Your task to perform on an android device: open app "DuckDuckGo Privacy Browser" (install if not already installed) Image 0: 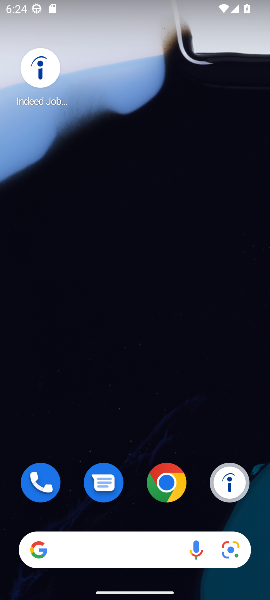
Step 0: drag from (178, 447) to (190, 3)
Your task to perform on an android device: open app "DuckDuckGo Privacy Browser" (install if not already installed) Image 1: 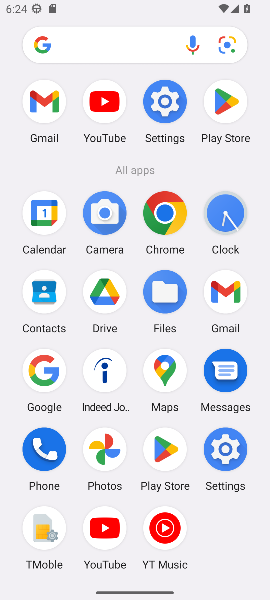
Step 1: click (222, 104)
Your task to perform on an android device: open app "DuckDuckGo Privacy Browser" (install if not already installed) Image 2: 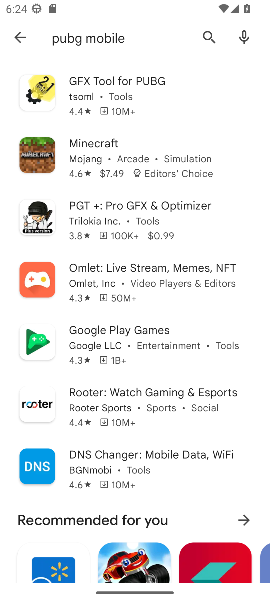
Step 2: click (207, 38)
Your task to perform on an android device: open app "DuckDuckGo Privacy Browser" (install if not already installed) Image 3: 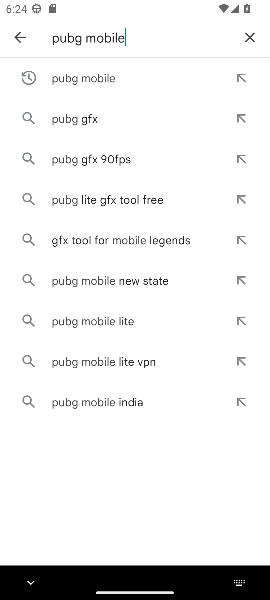
Step 3: click (253, 42)
Your task to perform on an android device: open app "DuckDuckGo Privacy Browser" (install if not already installed) Image 4: 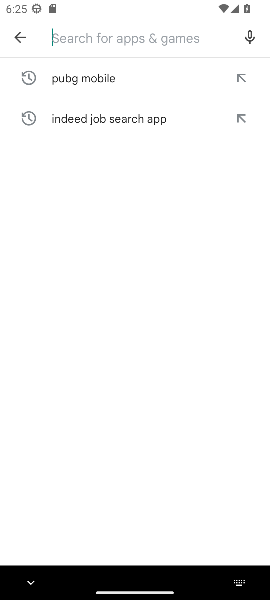
Step 4: type "DuckDuckGo privacy browser"
Your task to perform on an android device: open app "DuckDuckGo Privacy Browser" (install if not already installed) Image 5: 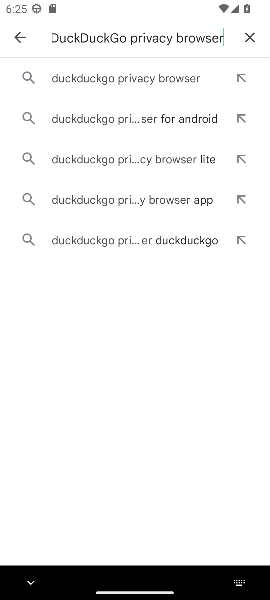
Step 5: click (118, 77)
Your task to perform on an android device: open app "DuckDuckGo Privacy Browser" (install if not already installed) Image 6: 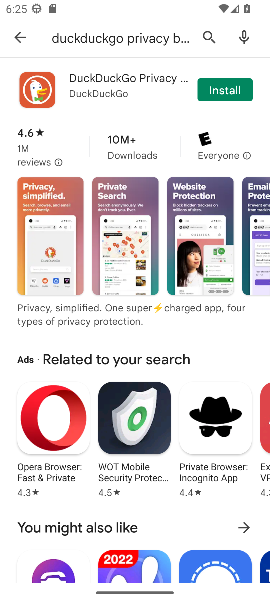
Step 6: click (98, 80)
Your task to perform on an android device: open app "DuckDuckGo Privacy Browser" (install if not already installed) Image 7: 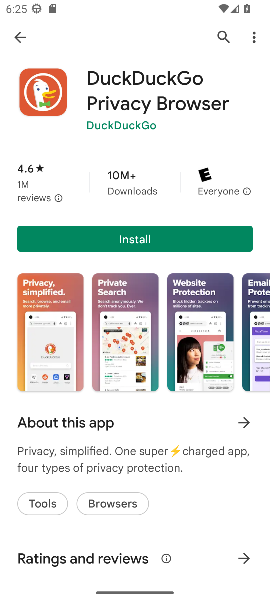
Step 7: click (108, 233)
Your task to perform on an android device: open app "DuckDuckGo Privacy Browser" (install if not already installed) Image 8: 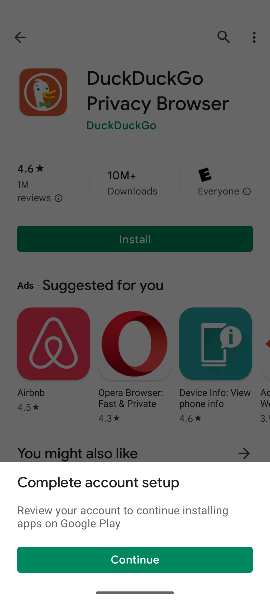
Step 8: click (98, 563)
Your task to perform on an android device: open app "DuckDuckGo Privacy Browser" (install if not already installed) Image 9: 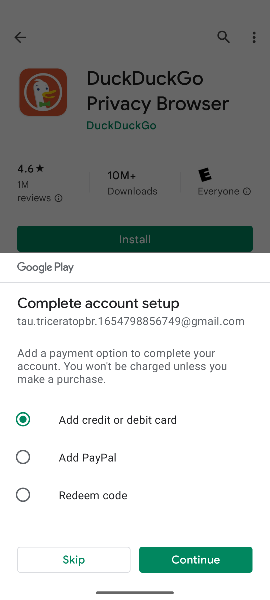
Step 9: click (68, 560)
Your task to perform on an android device: open app "DuckDuckGo Privacy Browser" (install if not already installed) Image 10: 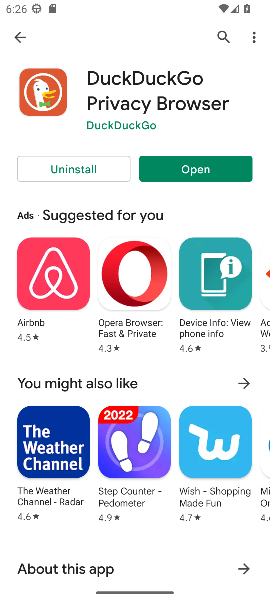
Step 10: click (216, 173)
Your task to perform on an android device: open app "DuckDuckGo Privacy Browser" (install if not already installed) Image 11: 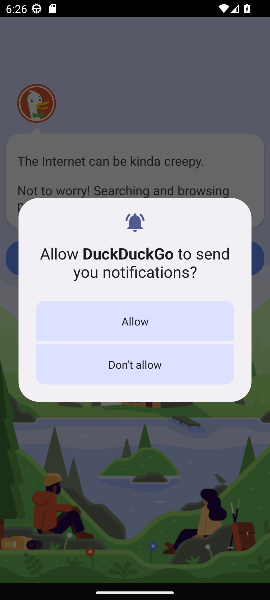
Step 11: click (186, 328)
Your task to perform on an android device: open app "DuckDuckGo Privacy Browser" (install if not already installed) Image 12: 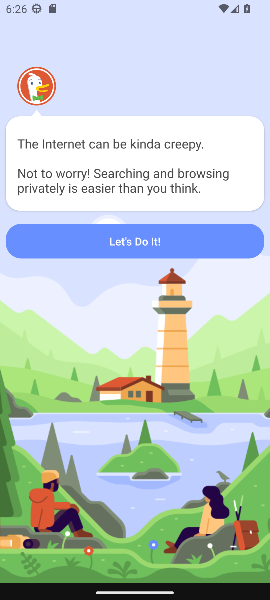
Step 12: task complete